Your task to perform on an android device: Do I have any events this weekend? Image 0: 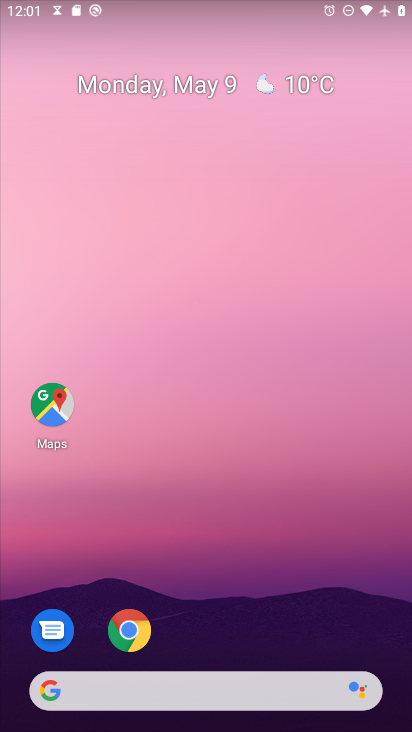
Step 0: press home button
Your task to perform on an android device: Do I have any events this weekend? Image 1: 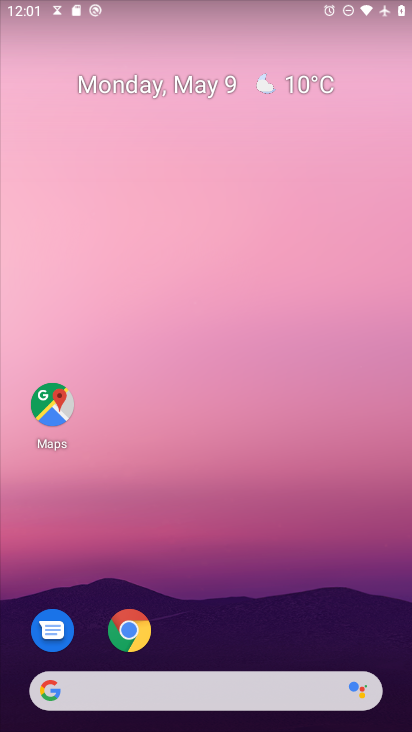
Step 1: drag from (133, 693) to (333, 69)
Your task to perform on an android device: Do I have any events this weekend? Image 2: 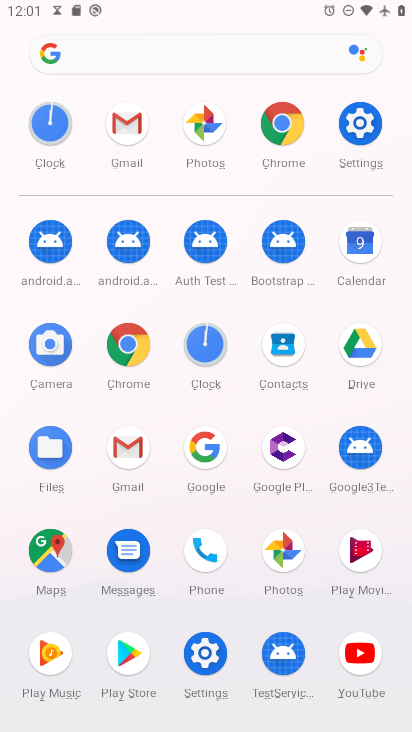
Step 2: click (366, 258)
Your task to perform on an android device: Do I have any events this weekend? Image 3: 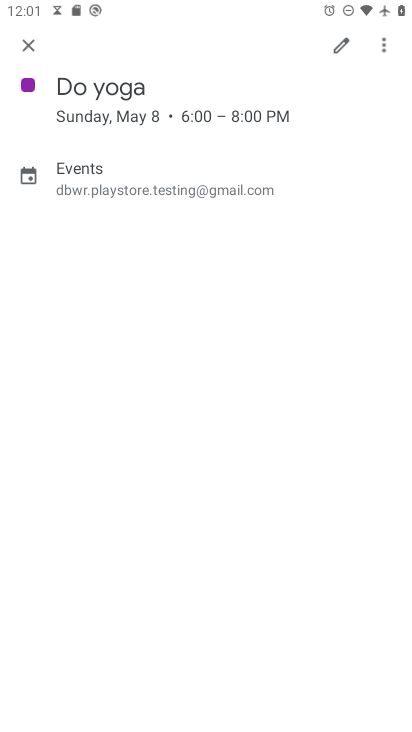
Step 3: click (25, 43)
Your task to perform on an android device: Do I have any events this weekend? Image 4: 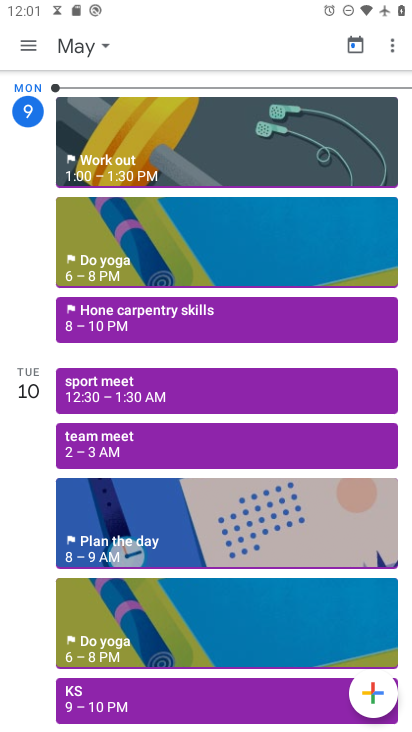
Step 4: click (71, 50)
Your task to perform on an android device: Do I have any events this weekend? Image 5: 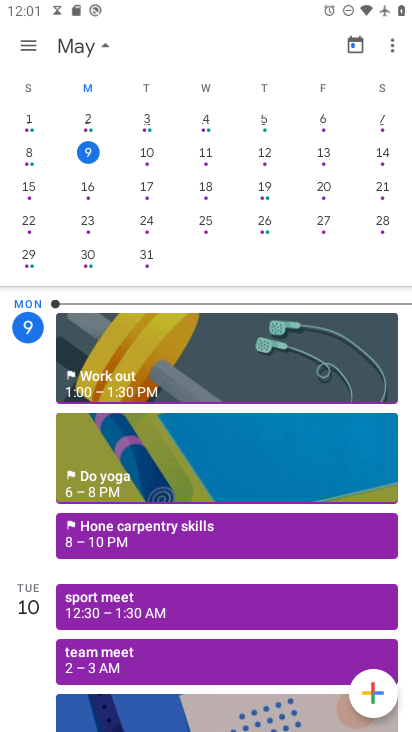
Step 5: click (382, 156)
Your task to perform on an android device: Do I have any events this weekend? Image 6: 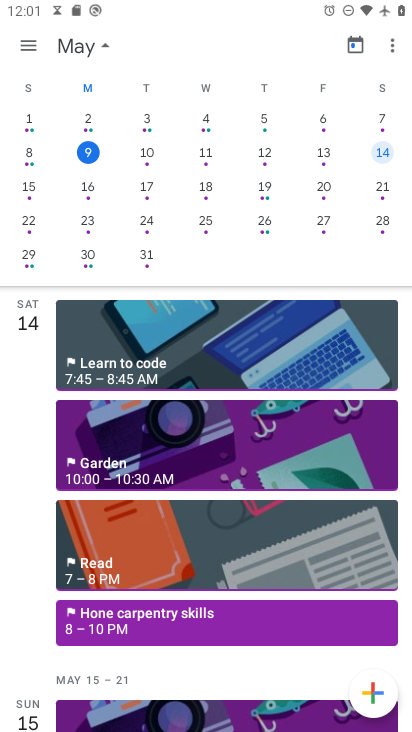
Step 6: click (34, 47)
Your task to perform on an android device: Do I have any events this weekend? Image 7: 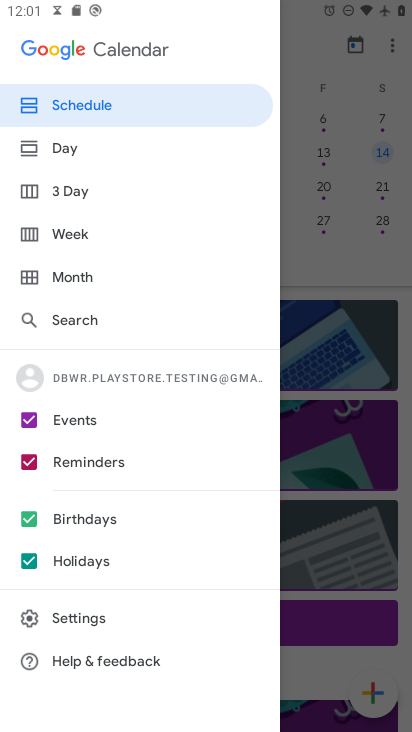
Step 7: click (79, 107)
Your task to perform on an android device: Do I have any events this weekend? Image 8: 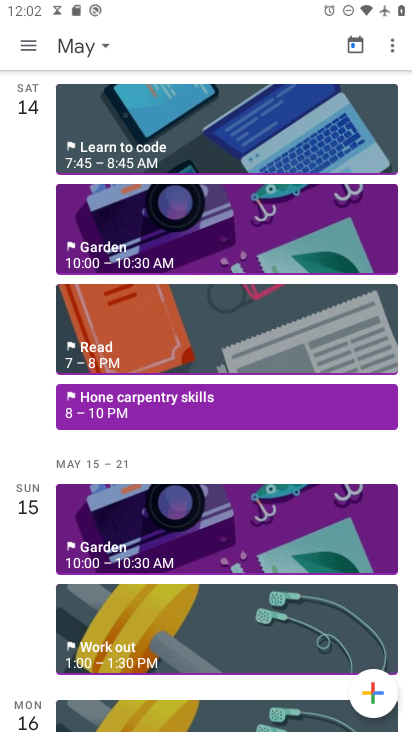
Step 8: click (156, 242)
Your task to perform on an android device: Do I have any events this weekend? Image 9: 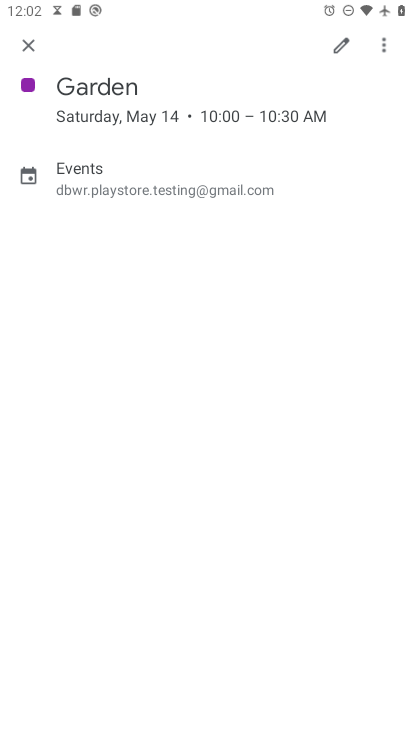
Step 9: task complete